Your task to perform on an android device: Is it going to rain this weekend? Image 0: 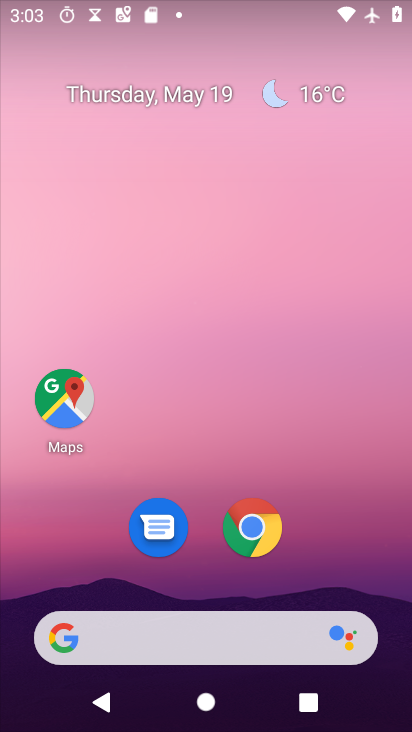
Step 0: click (319, 100)
Your task to perform on an android device: Is it going to rain this weekend? Image 1: 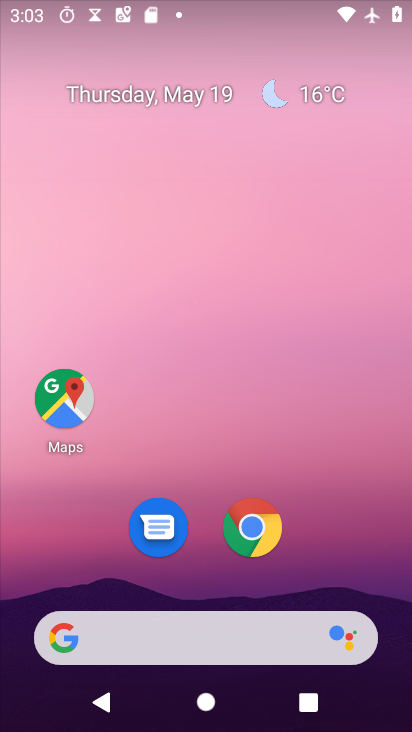
Step 1: drag from (283, 278) to (224, 1)
Your task to perform on an android device: Is it going to rain this weekend? Image 2: 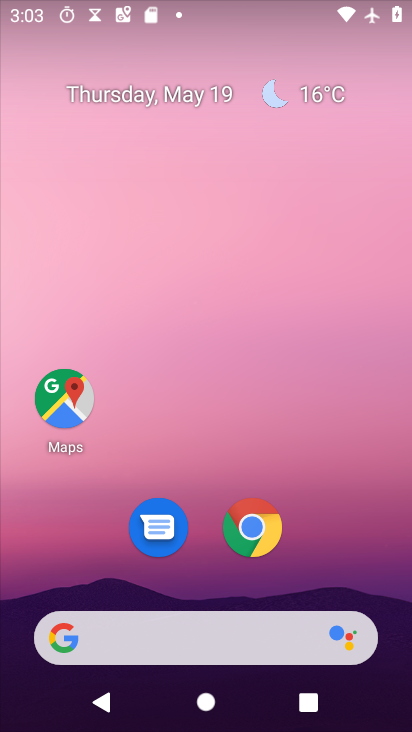
Step 2: drag from (324, 548) to (216, 0)
Your task to perform on an android device: Is it going to rain this weekend? Image 3: 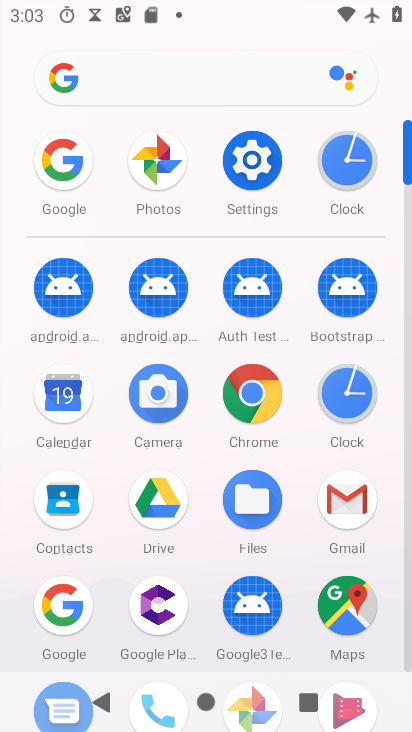
Step 3: click (72, 182)
Your task to perform on an android device: Is it going to rain this weekend? Image 4: 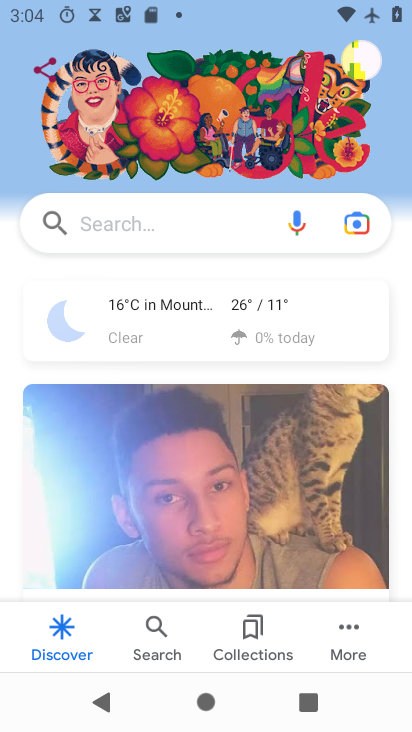
Step 4: click (237, 297)
Your task to perform on an android device: Is it going to rain this weekend? Image 5: 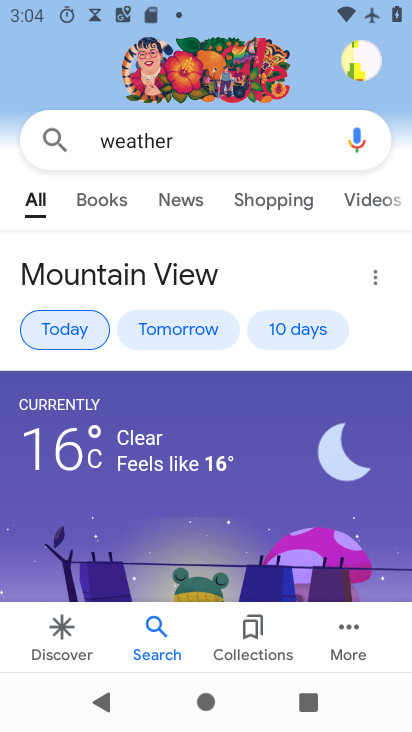
Step 5: click (287, 332)
Your task to perform on an android device: Is it going to rain this weekend? Image 6: 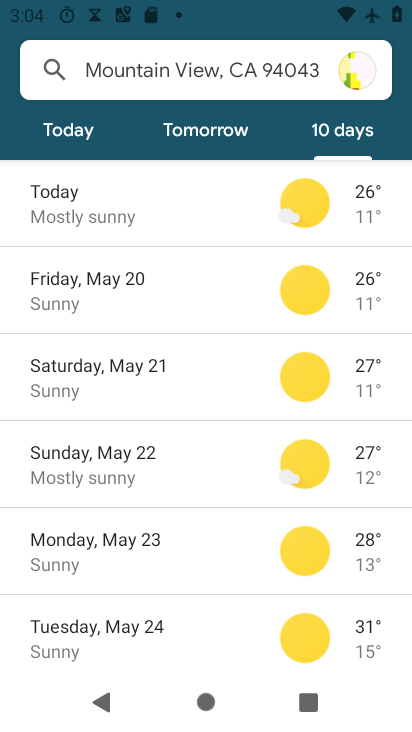
Step 6: task complete